Your task to perform on an android device: Open battery settings Image 0: 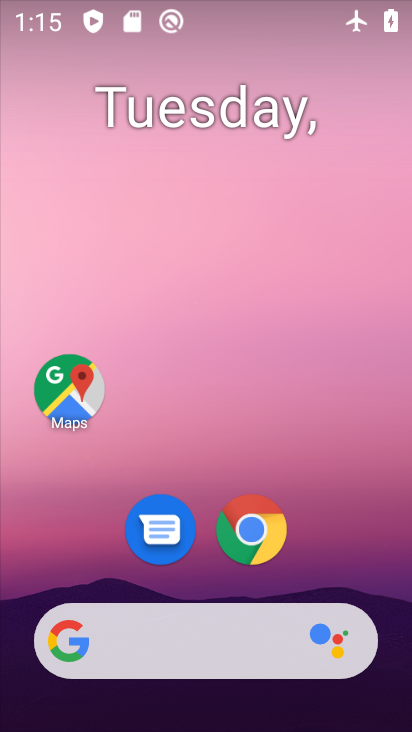
Step 0: drag from (375, 567) to (322, 217)
Your task to perform on an android device: Open battery settings Image 1: 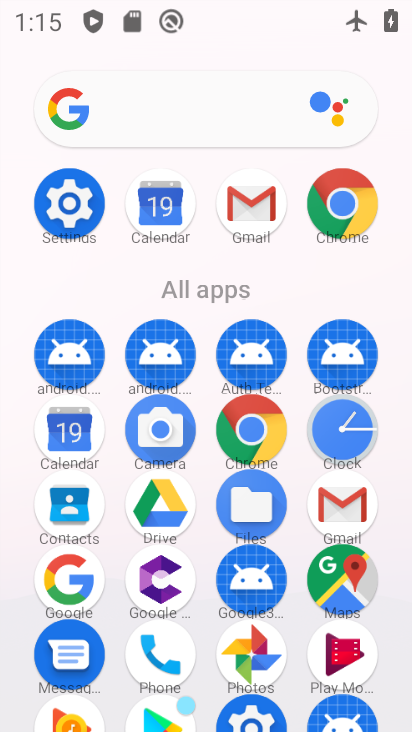
Step 1: click (70, 169)
Your task to perform on an android device: Open battery settings Image 2: 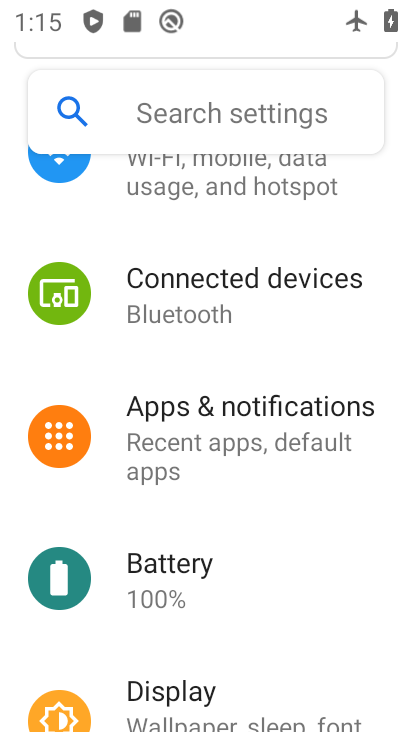
Step 2: click (313, 560)
Your task to perform on an android device: Open battery settings Image 3: 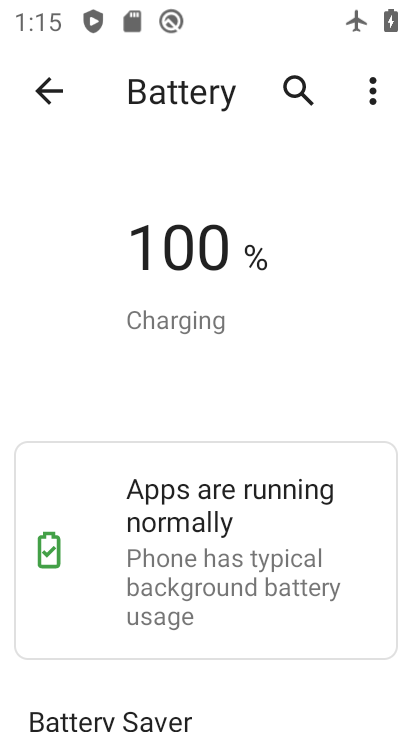
Step 3: task complete